Your task to perform on an android device: stop showing notifications on the lock screen Image 0: 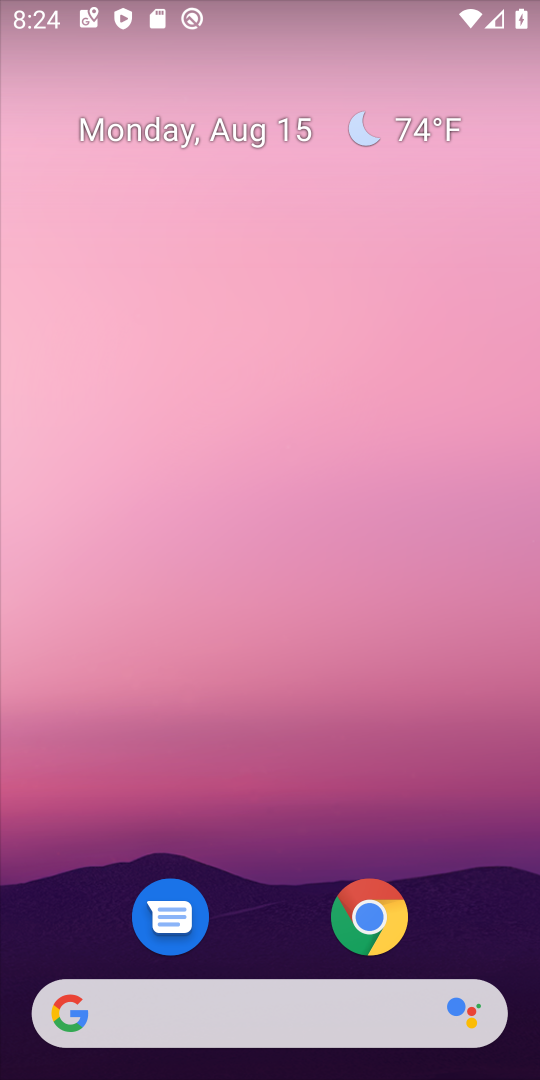
Step 0: drag from (251, 832) to (314, 0)
Your task to perform on an android device: stop showing notifications on the lock screen Image 1: 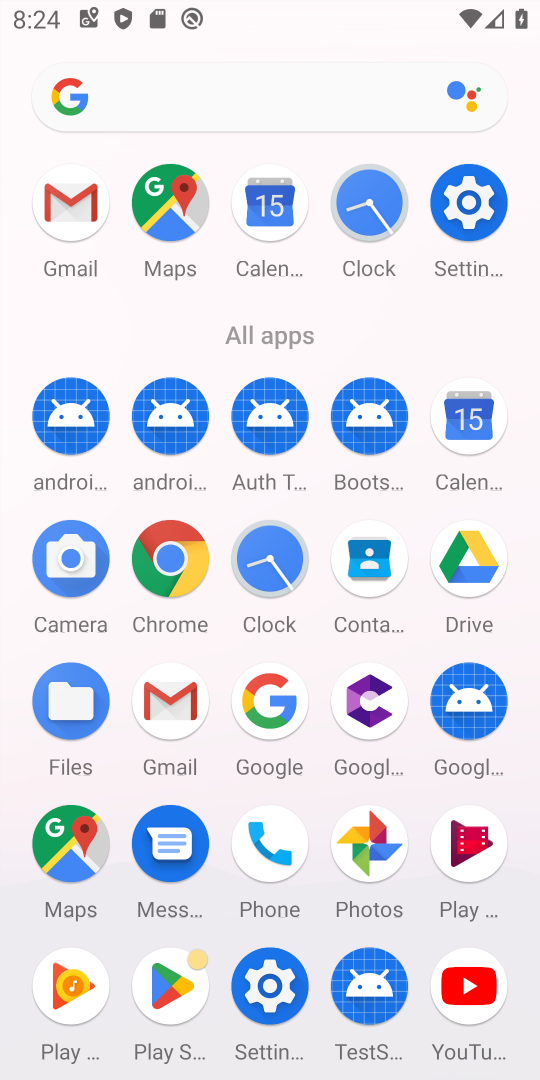
Step 1: click (470, 200)
Your task to perform on an android device: stop showing notifications on the lock screen Image 2: 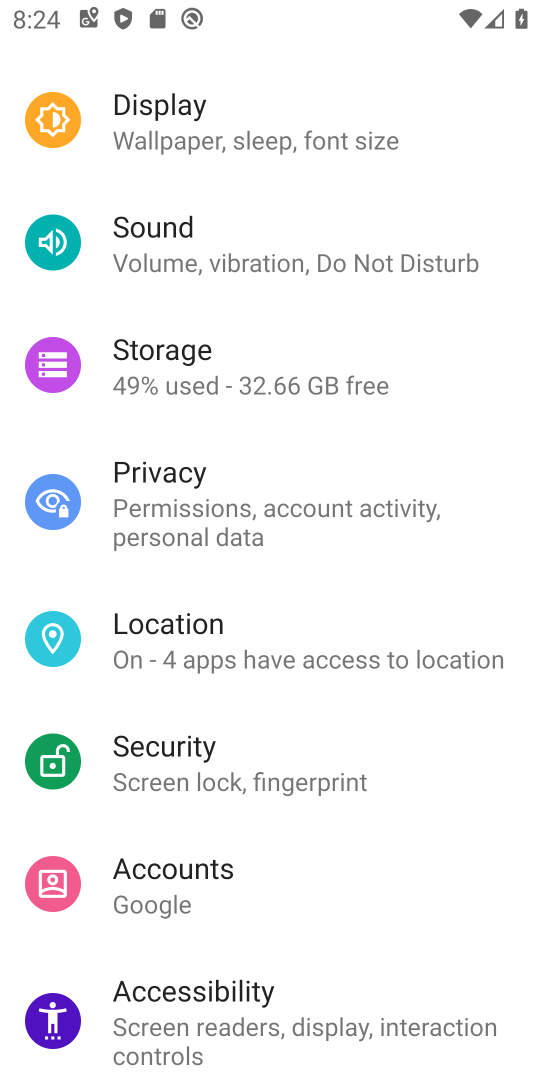
Step 2: drag from (268, 255) to (245, 843)
Your task to perform on an android device: stop showing notifications on the lock screen Image 3: 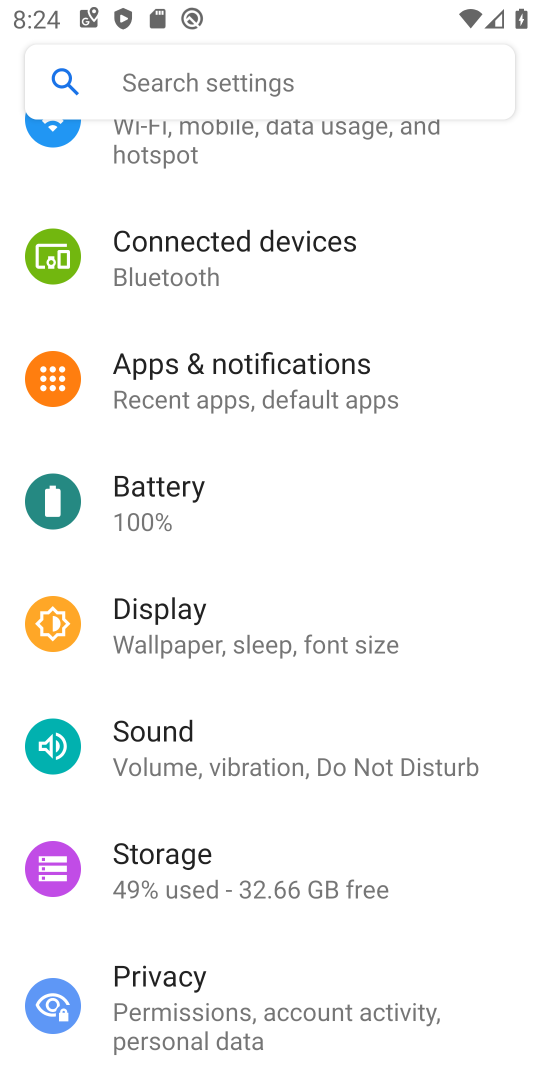
Step 3: click (268, 381)
Your task to perform on an android device: stop showing notifications on the lock screen Image 4: 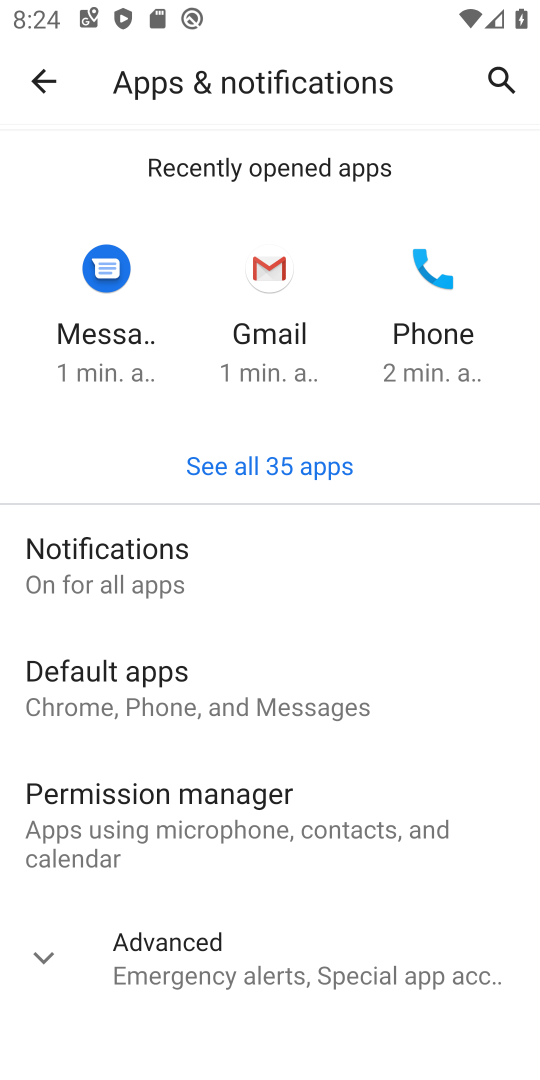
Step 4: click (163, 544)
Your task to perform on an android device: stop showing notifications on the lock screen Image 5: 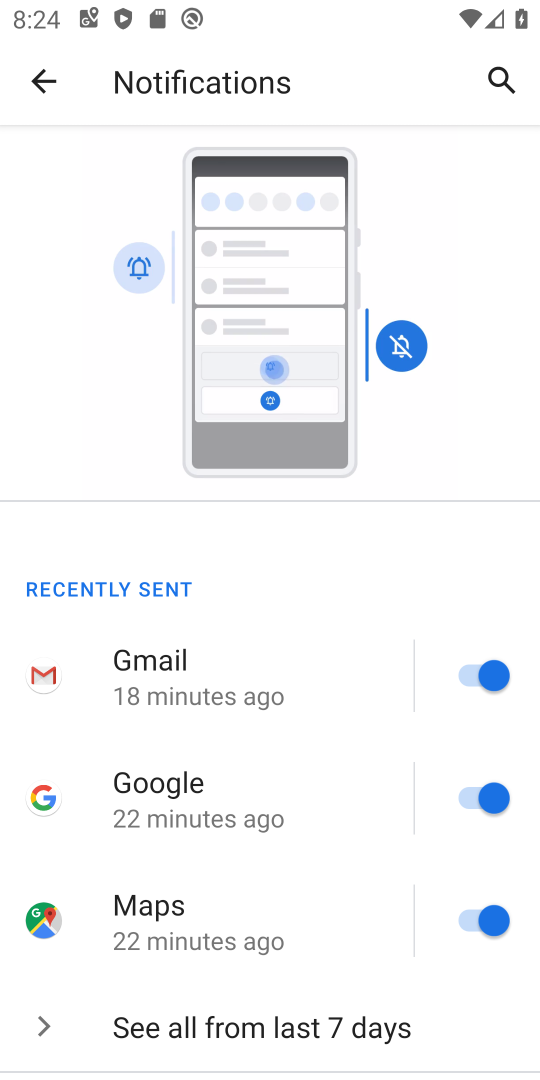
Step 5: drag from (280, 768) to (294, 25)
Your task to perform on an android device: stop showing notifications on the lock screen Image 6: 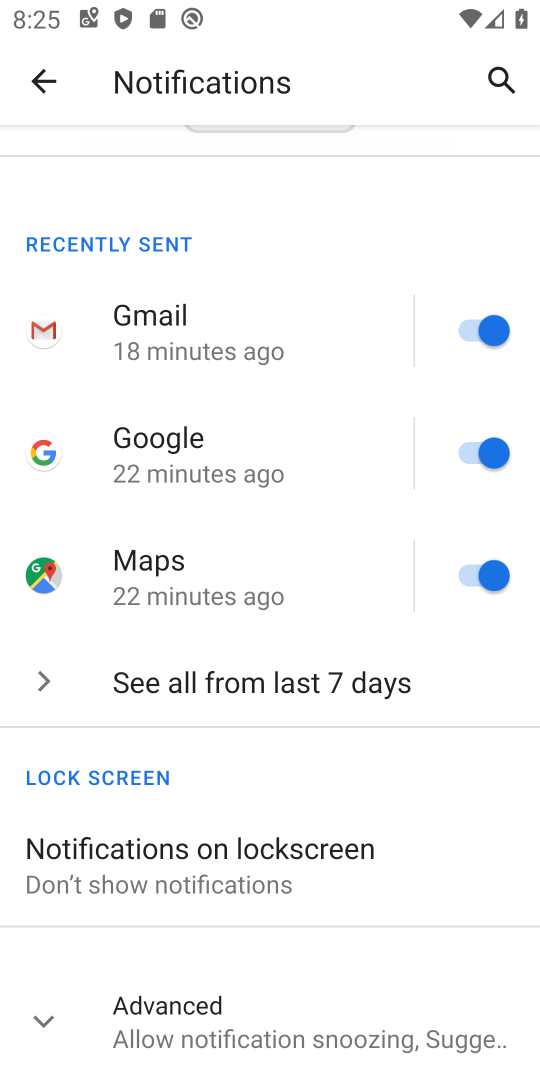
Step 6: click (183, 858)
Your task to perform on an android device: stop showing notifications on the lock screen Image 7: 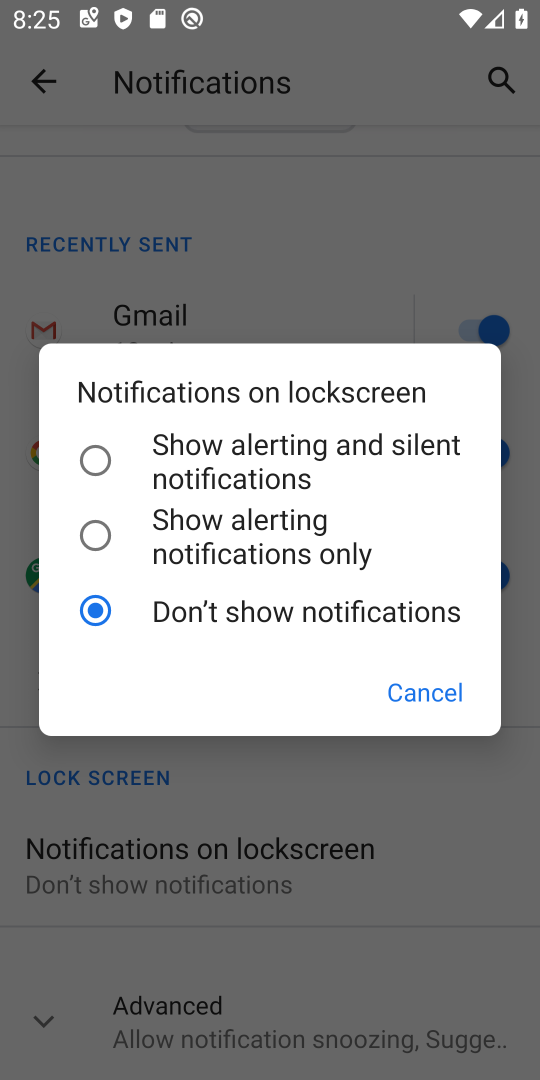
Step 7: click (217, 610)
Your task to perform on an android device: stop showing notifications on the lock screen Image 8: 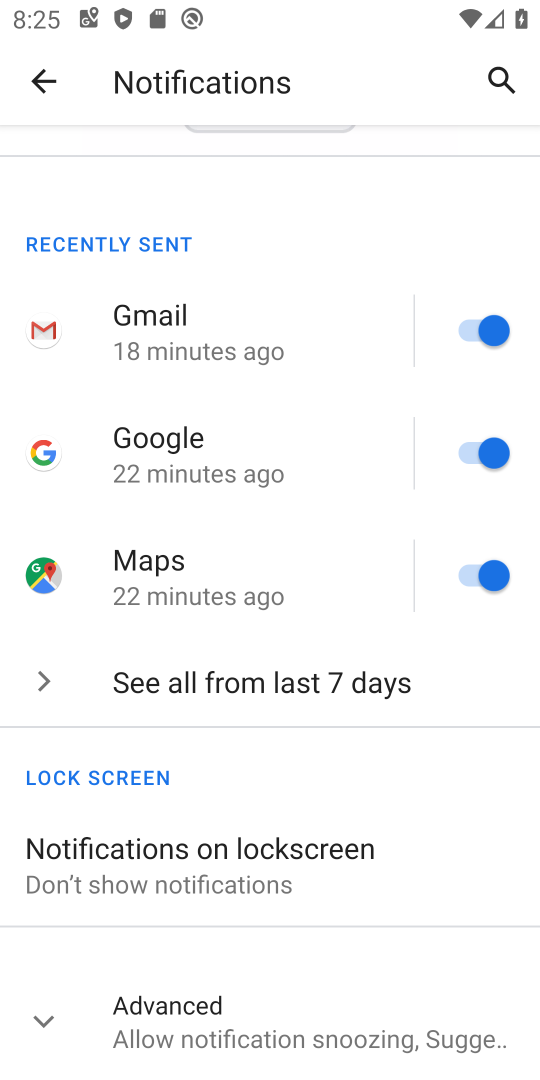
Step 8: task complete